Your task to perform on an android device: Open the map Image 0: 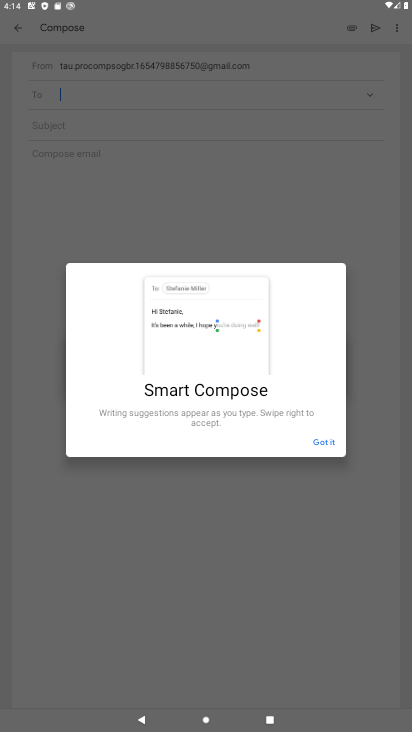
Step 0: press home button
Your task to perform on an android device: Open the map Image 1: 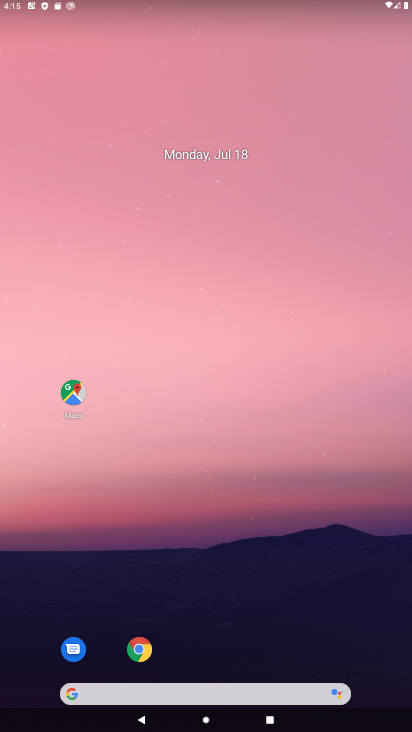
Step 1: click (73, 379)
Your task to perform on an android device: Open the map Image 2: 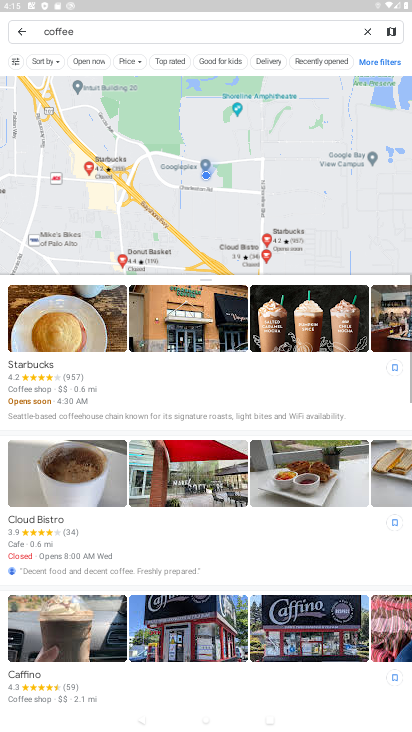
Step 2: task complete